Your task to perform on an android device: Search for a new lawnmower on Lowes. Image 0: 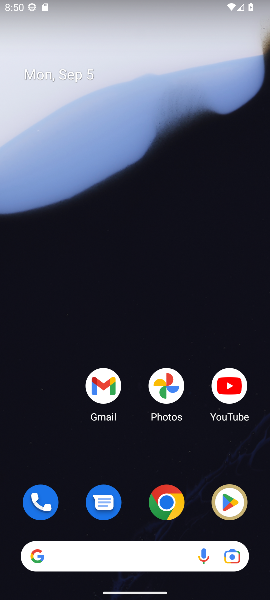
Step 0: drag from (213, 467) to (112, 37)
Your task to perform on an android device: Search for a new lawnmower on Lowes. Image 1: 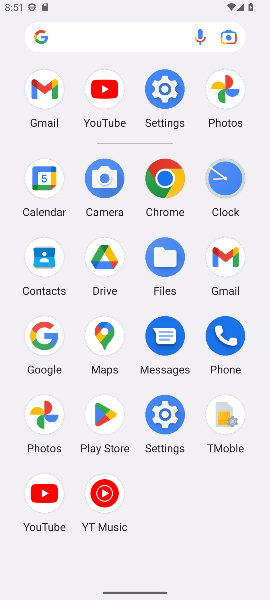
Step 1: click (41, 328)
Your task to perform on an android device: Search for a new lawnmower on Lowes. Image 2: 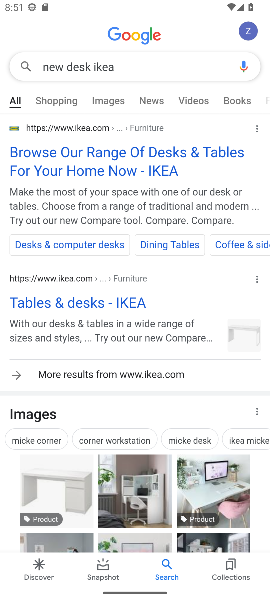
Step 2: press back button
Your task to perform on an android device: Search for a new lawnmower on Lowes. Image 3: 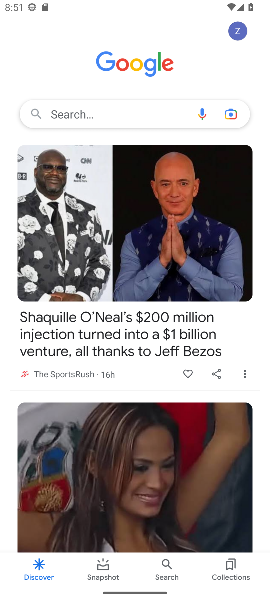
Step 3: click (98, 115)
Your task to perform on an android device: Search for a new lawnmower on Lowes. Image 4: 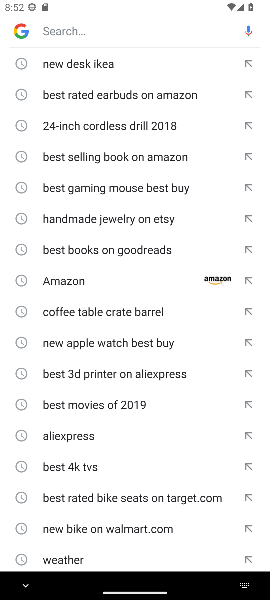
Step 4: type "new lawnmower on Lowes"
Your task to perform on an android device: Search for a new lawnmower on Lowes. Image 5: 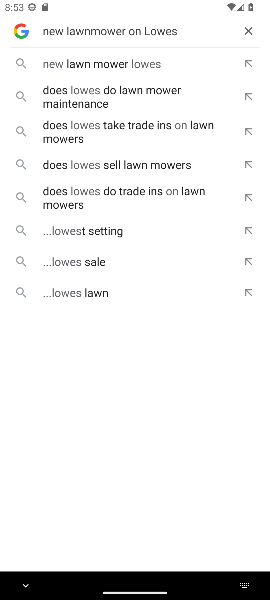
Step 5: click (123, 63)
Your task to perform on an android device: Search for a new lawnmower on Lowes. Image 6: 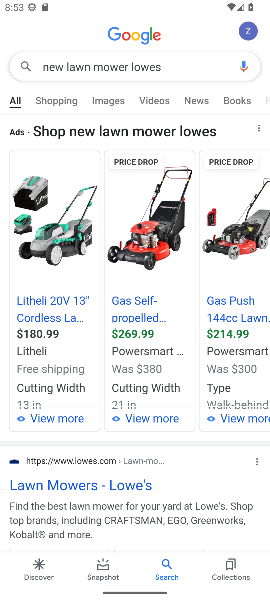
Step 6: task complete